Your task to perform on an android device: Go to Google Image 0: 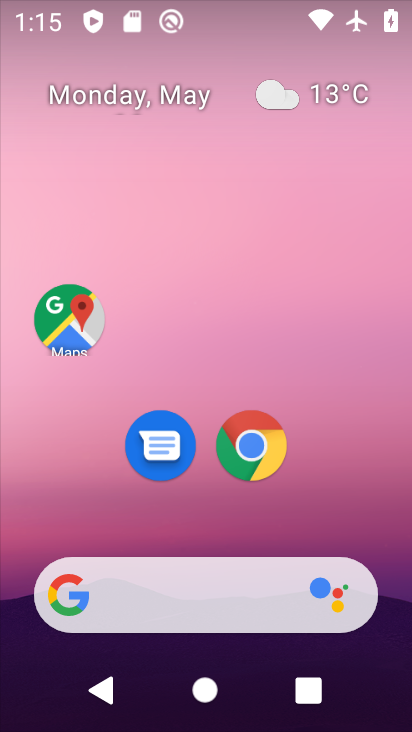
Step 0: drag from (411, 616) to (310, 141)
Your task to perform on an android device: Go to Google Image 1: 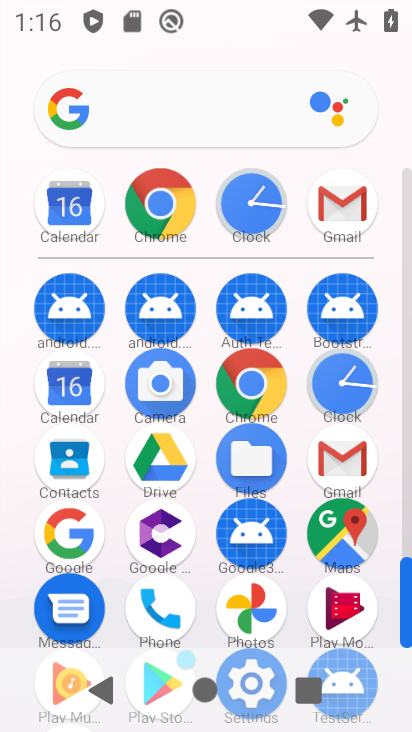
Step 1: click (76, 533)
Your task to perform on an android device: Go to Google Image 2: 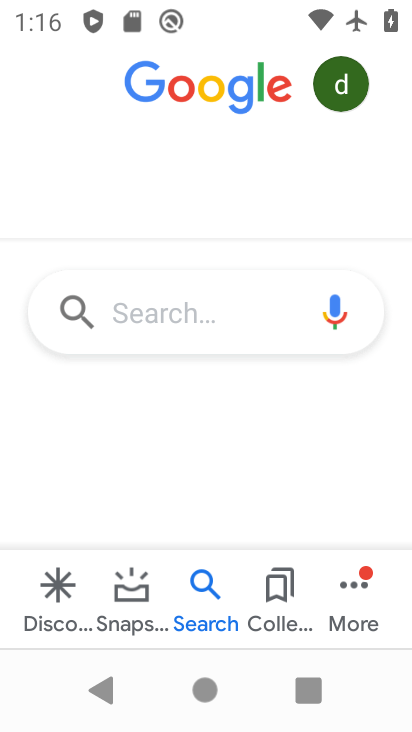
Step 2: task complete